Your task to perform on an android device: choose inbox layout in the gmail app Image 0: 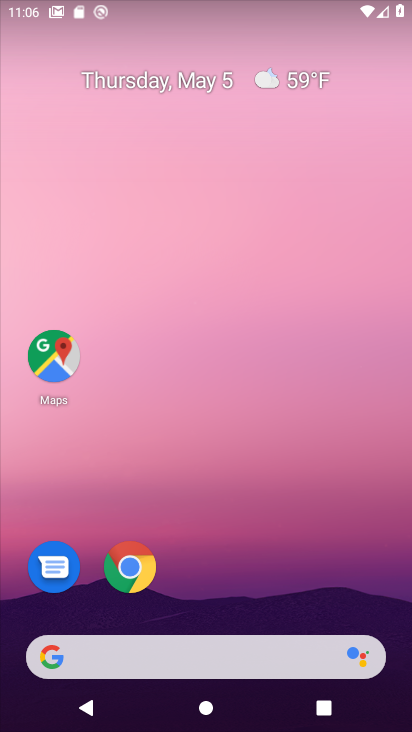
Step 0: drag from (312, 608) to (288, 15)
Your task to perform on an android device: choose inbox layout in the gmail app Image 1: 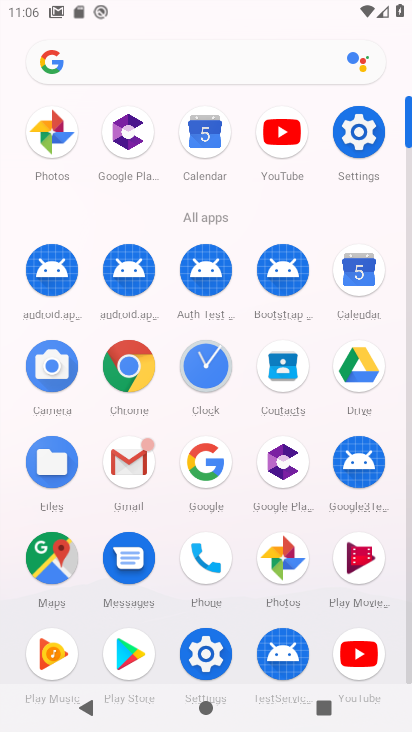
Step 1: click (132, 466)
Your task to perform on an android device: choose inbox layout in the gmail app Image 2: 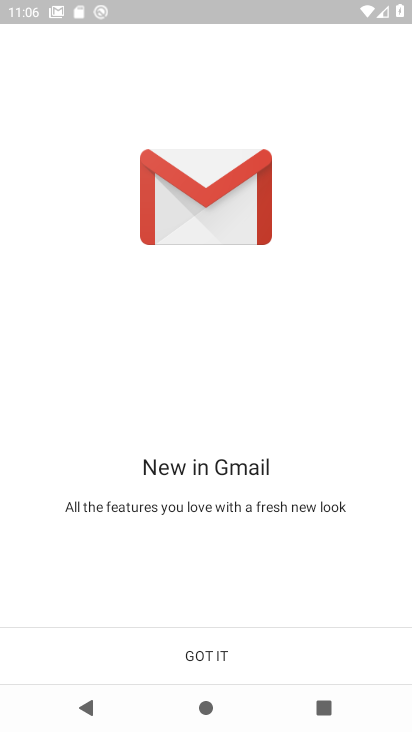
Step 2: click (192, 650)
Your task to perform on an android device: choose inbox layout in the gmail app Image 3: 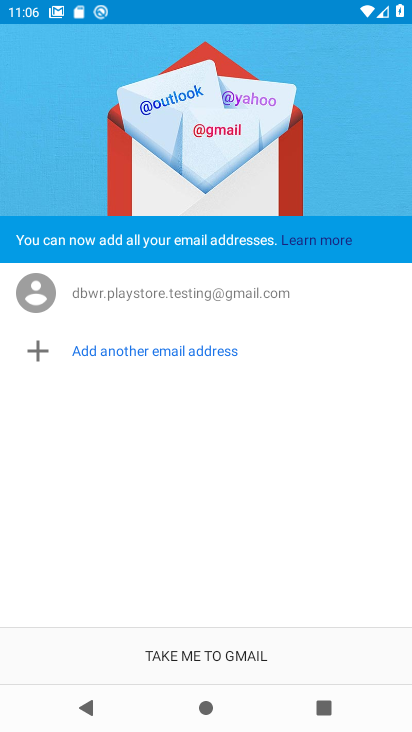
Step 3: click (192, 650)
Your task to perform on an android device: choose inbox layout in the gmail app Image 4: 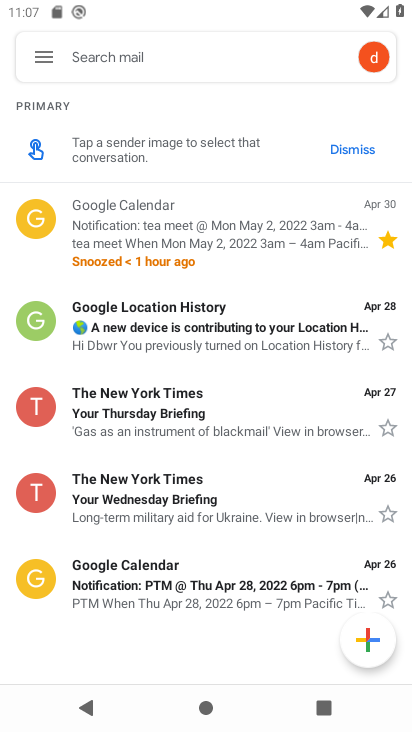
Step 4: click (38, 55)
Your task to perform on an android device: choose inbox layout in the gmail app Image 5: 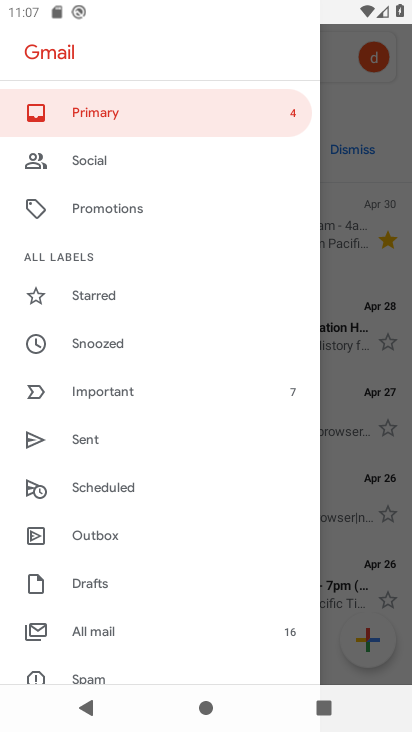
Step 5: drag from (141, 650) to (118, 251)
Your task to perform on an android device: choose inbox layout in the gmail app Image 6: 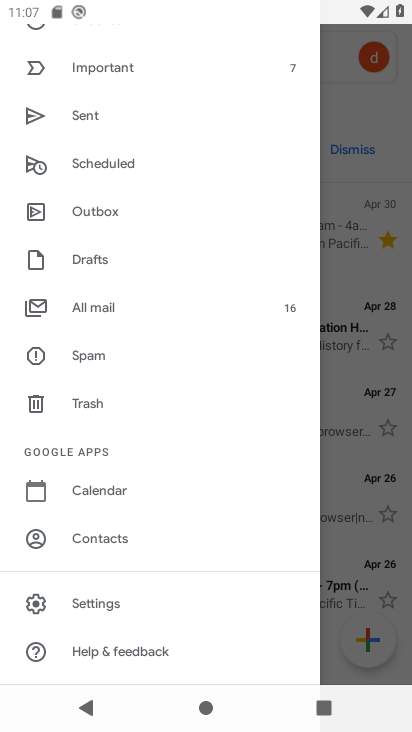
Step 6: click (110, 598)
Your task to perform on an android device: choose inbox layout in the gmail app Image 7: 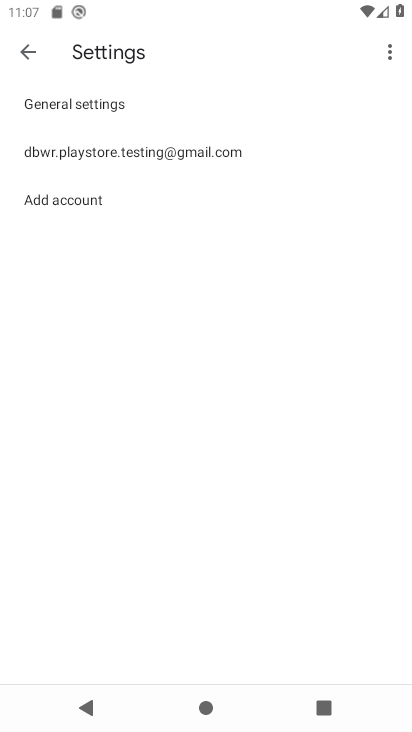
Step 7: click (90, 152)
Your task to perform on an android device: choose inbox layout in the gmail app Image 8: 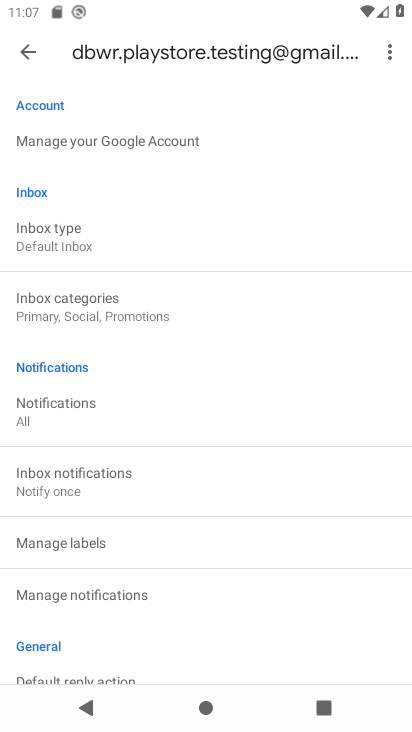
Step 8: click (59, 253)
Your task to perform on an android device: choose inbox layout in the gmail app Image 9: 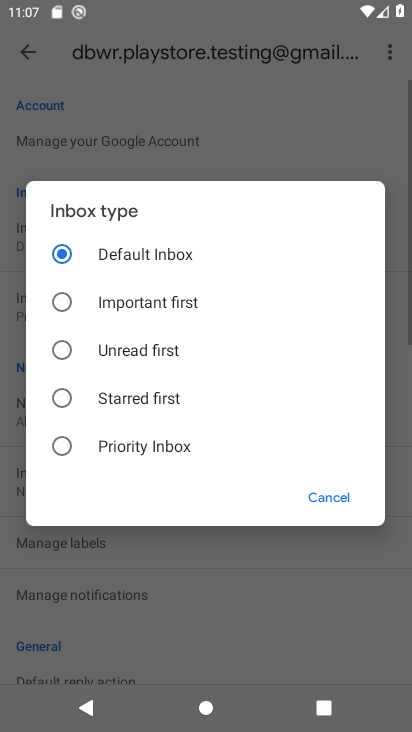
Step 9: click (76, 312)
Your task to perform on an android device: choose inbox layout in the gmail app Image 10: 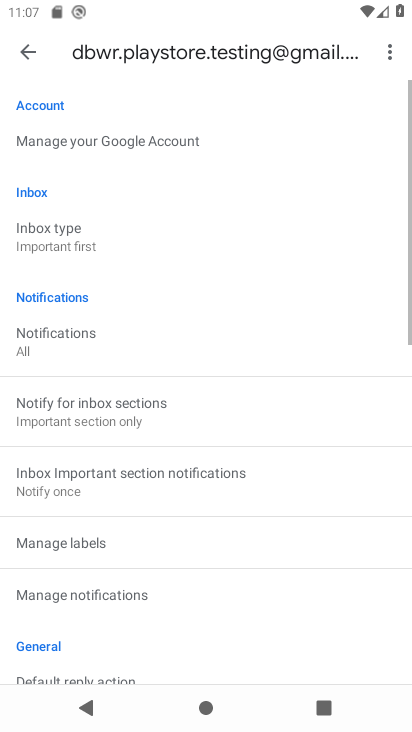
Step 10: task complete